Your task to perform on an android device: When is my next meeting? Image 0: 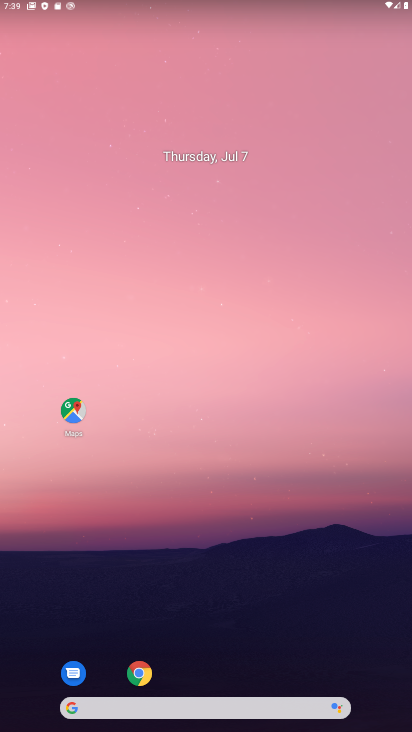
Step 0: drag from (187, 108) to (182, 7)
Your task to perform on an android device: When is my next meeting? Image 1: 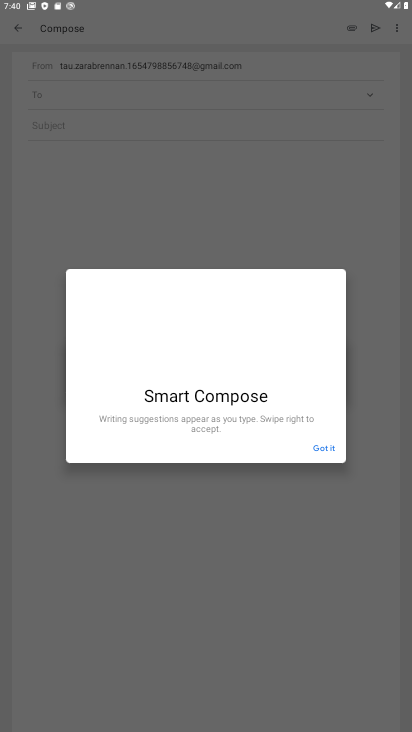
Step 1: press home button
Your task to perform on an android device: When is my next meeting? Image 2: 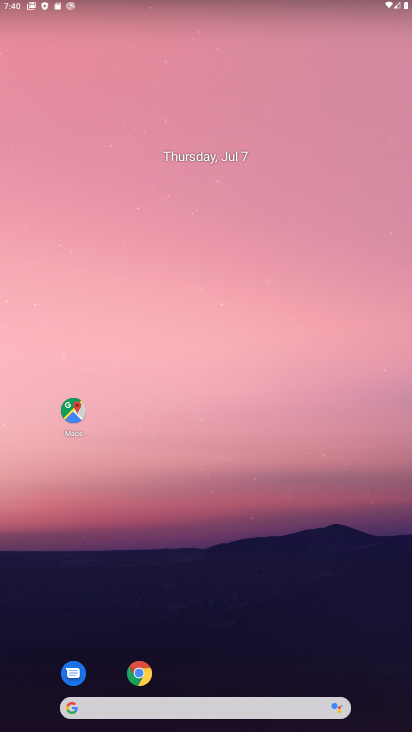
Step 2: drag from (194, 685) to (167, 125)
Your task to perform on an android device: When is my next meeting? Image 3: 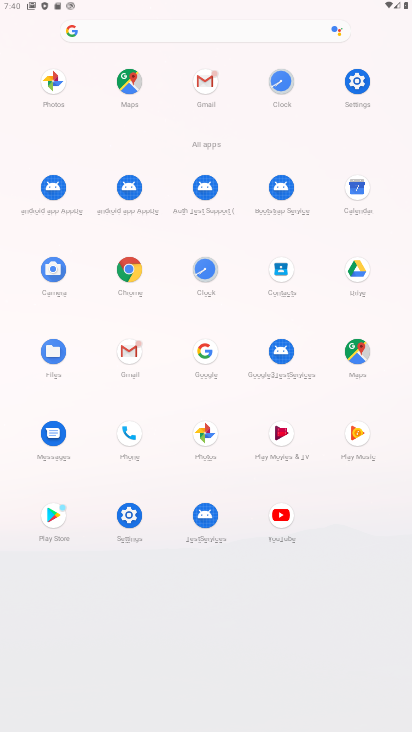
Step 3: click (356, 192)
Your task to perform on an android device: When is my next meeting? Image 4: 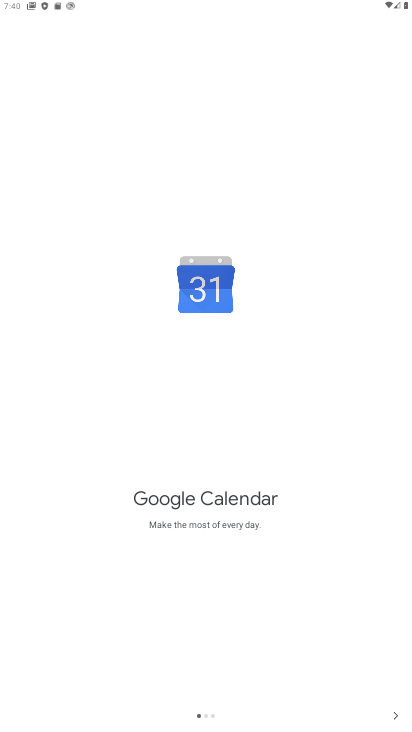
Step 4: click (393, 712)
Your task to perform on an android device: When is my next meeting? Image 5: 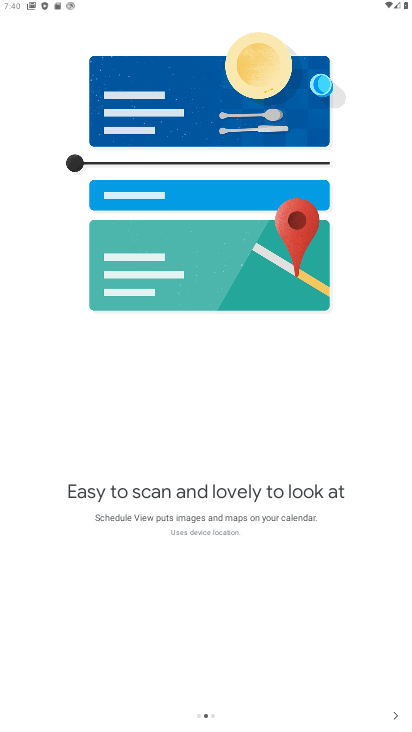
Step 5: click (393, 712)
Your task to perform on an android device: When is my next meeting? Image 6: 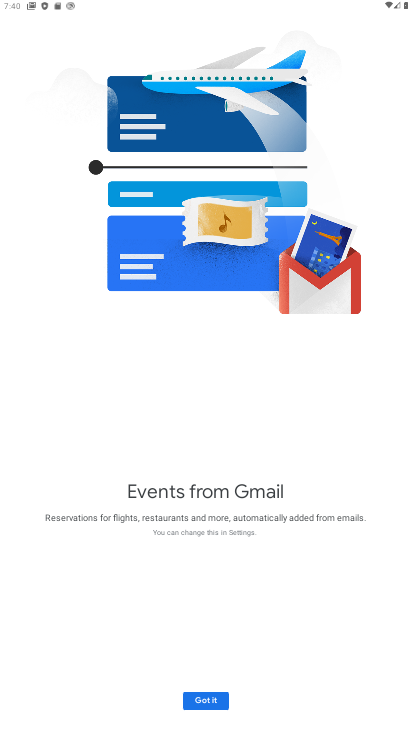
Step 6: click (191, 706)
Your task to perform on an android device: When is my next meeting? Image 7: 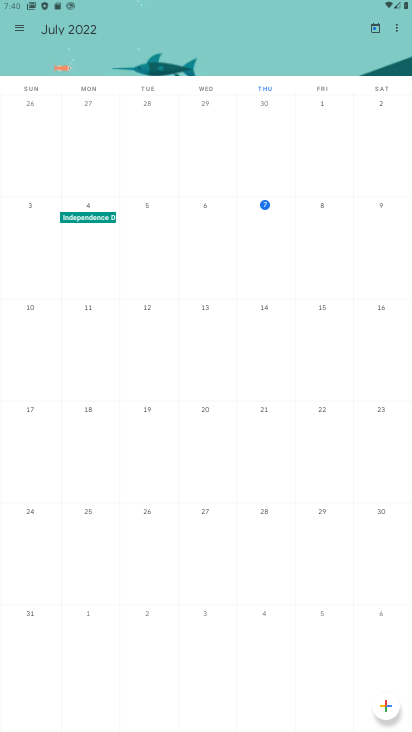
Step 7: click (16, 29)
Your task to perform on an android device: When is my next meeting? Image 8: 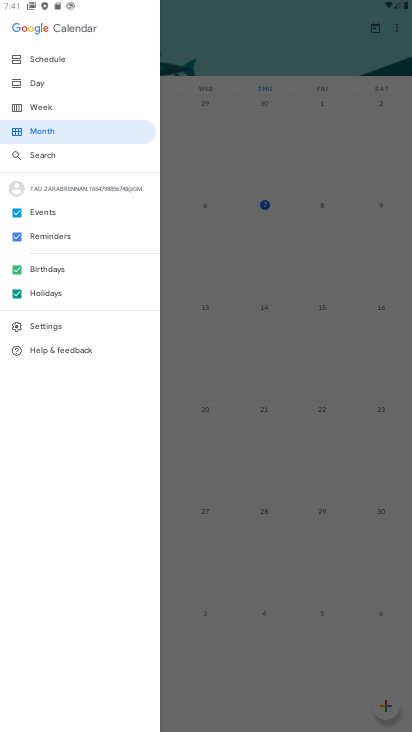
Step 8: click (43, 107)
Your task to perform on an android device: When is my next meeting? Image 9: 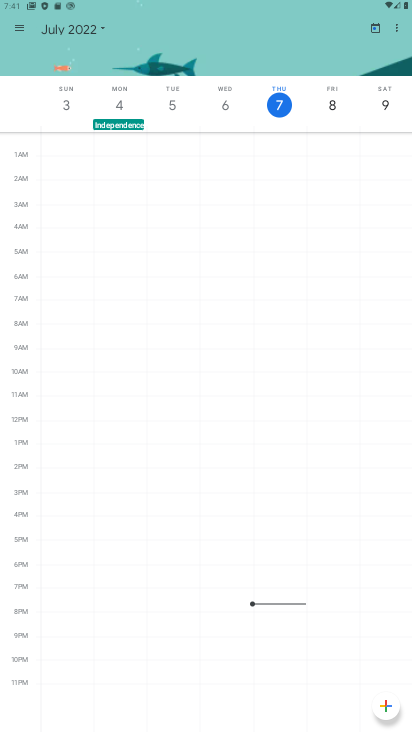
Step 9: drag from (373, 108) to (29, 74)
Your task to perform on an android device: When is my next meeting? Image 10: 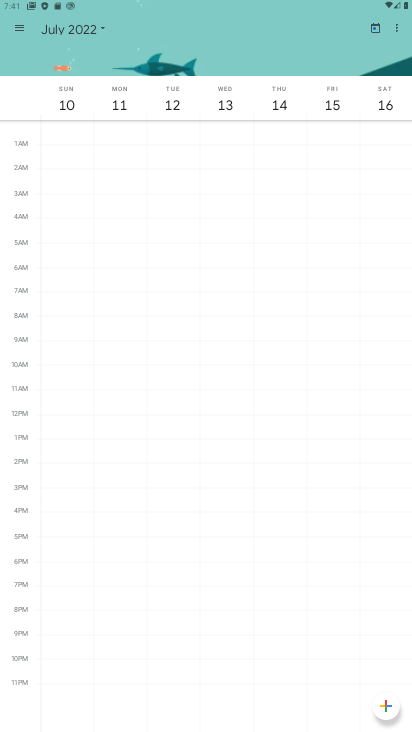
Step 10: click (20, 31)
Your task to perform on an android device: When is my next meeting? Image 11: 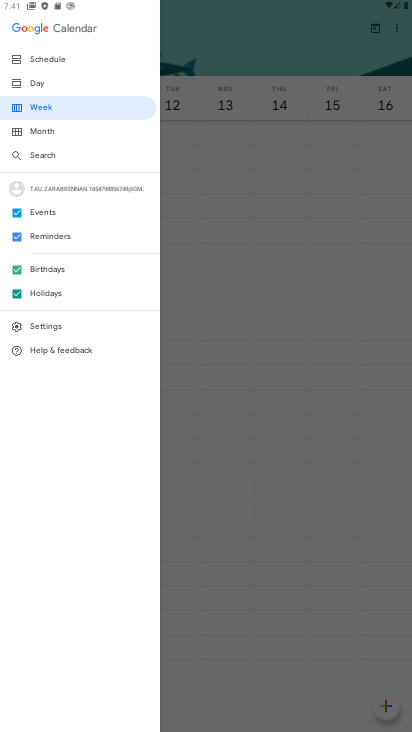
Step 11: click (217, 310)
Your task to perform on an android device: When is my next meeting? Image 12: 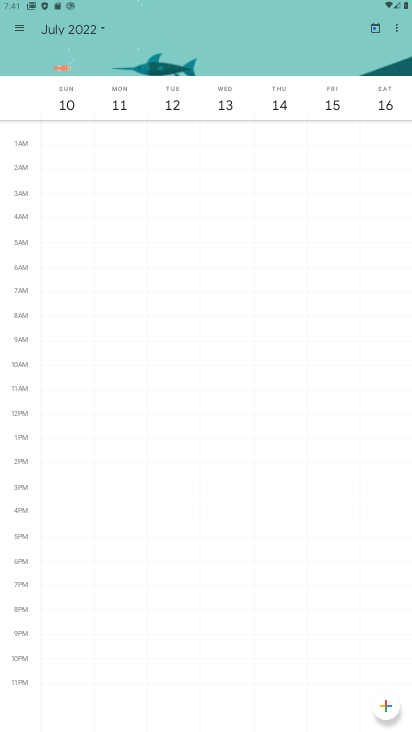
Step 12: task complete